Your task to perform on an android device: Open ESPN.com Image 0: 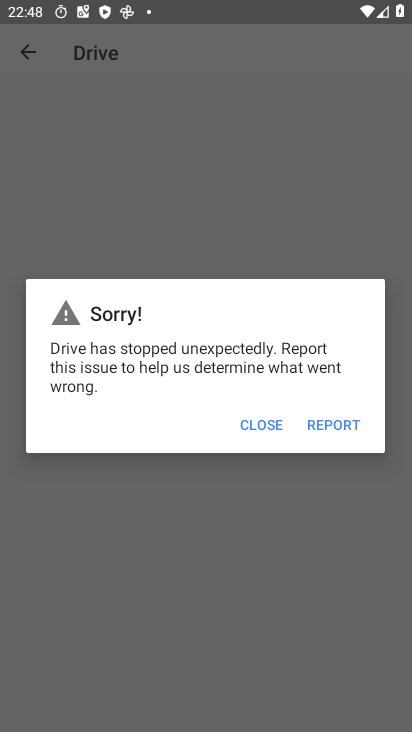
Step 0: press home button
Your task to perform on an android device: Open ESPN.com Image 1: 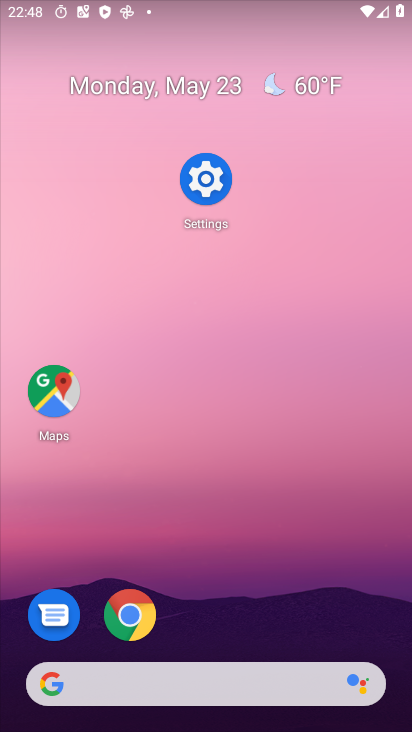
Step 1: drag from (251, 571) to (257, 41)
Your task to perform on an android device: Open ESPN.com Image 2: 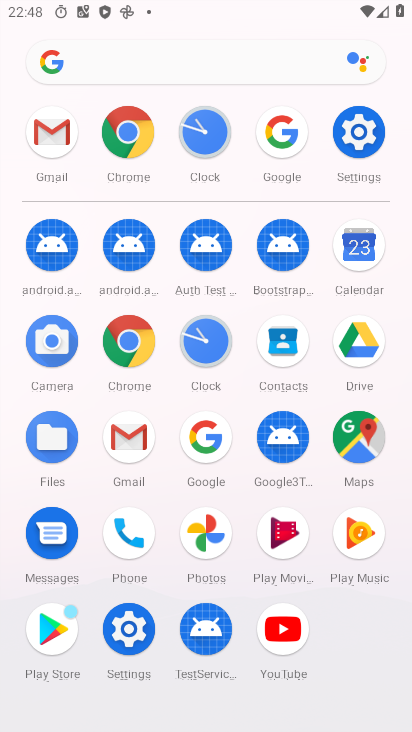
Step 2: click (280, 135)
Your task to perform on an android device: Open ESPN.com Image 3: 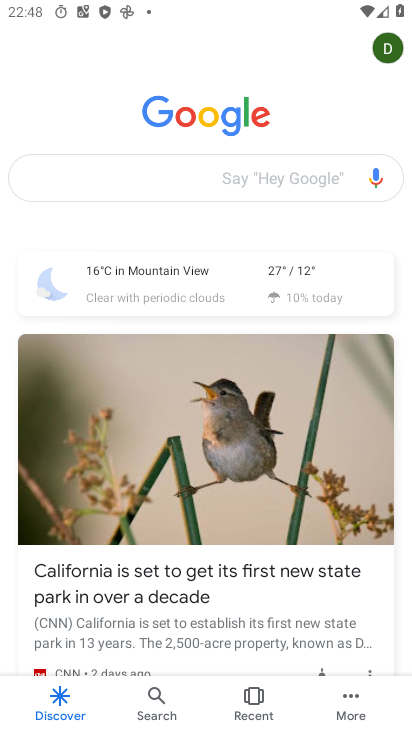
Step 3: click (232, 175)
Your task to perform on an android device: Open ESPN.com Image 4: 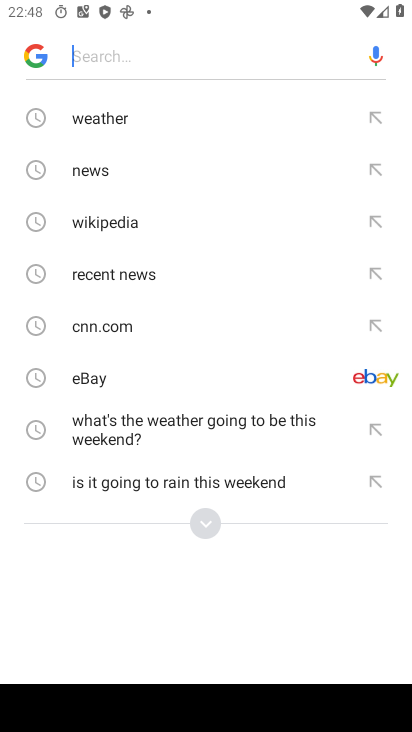
Step 4: type "espn.com"
Your task to perform on an android device: Open ESPN.com Image 5: 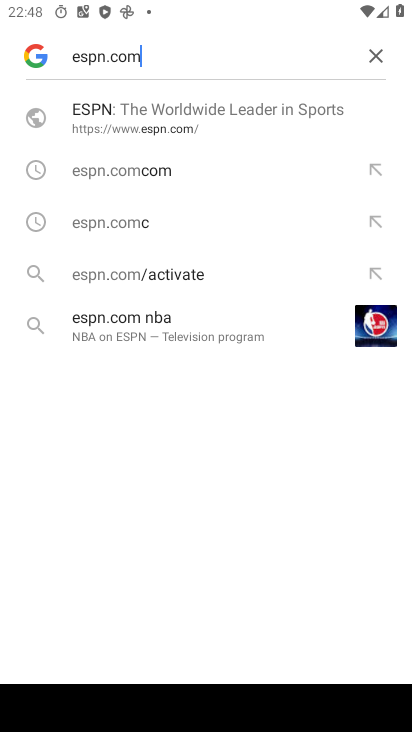
Step 5: click (171, 110)
Your task to perform on an android device: Open ESPN.com Image 6: 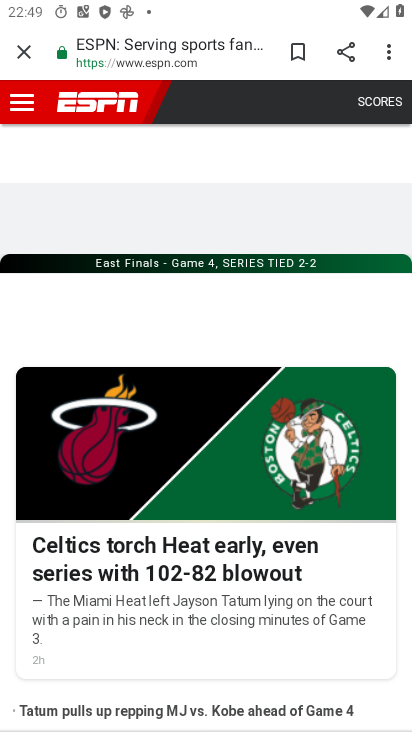
Step 6: task complete